Your task to perform on an android device: Open accessibility settings Image 0: 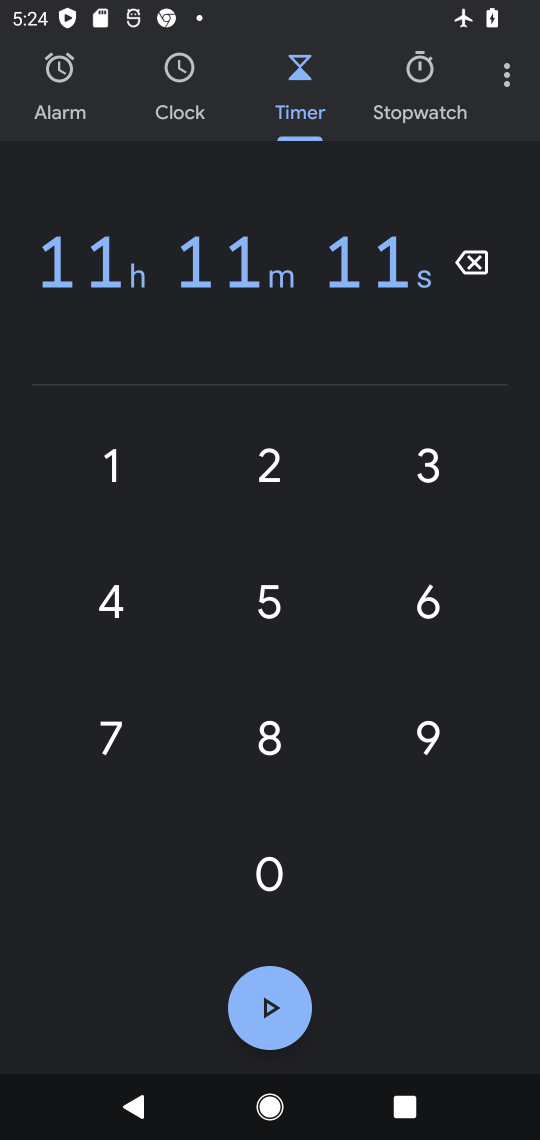
Step 0: press home button
Your task to perform on an android device: Open accessibility settings Image 1: 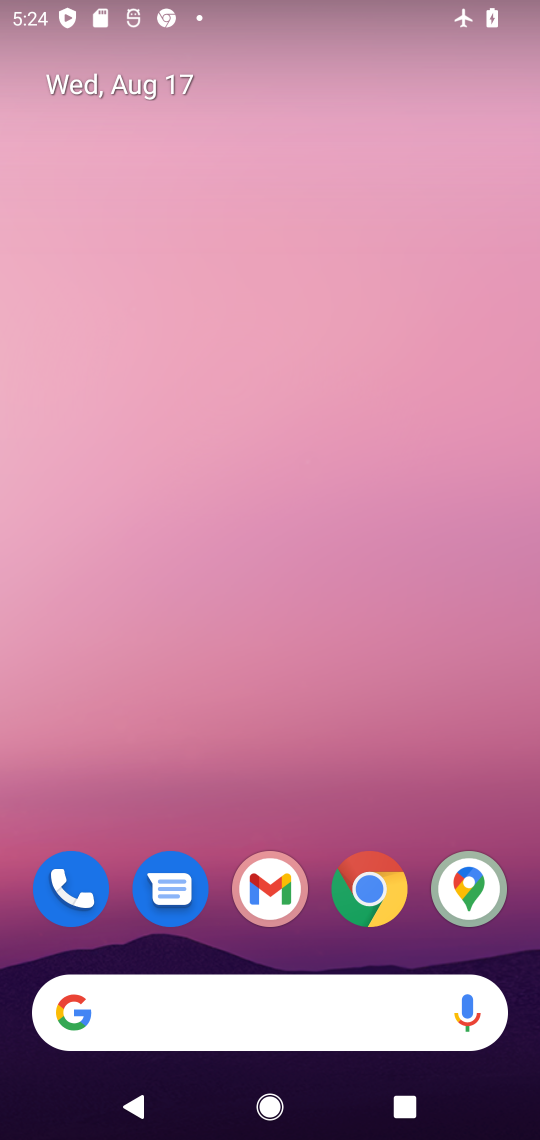
Step 1: drag from (283, 768) to (190, 198)
Your task to perform on an android device: Open accessibility settings Image 2: 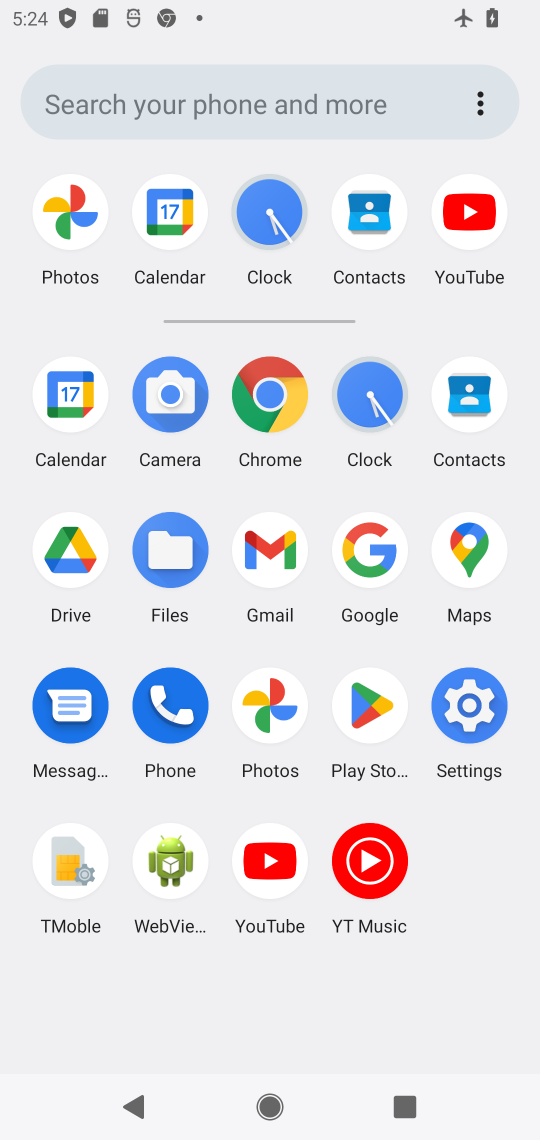
Step 2: click (470, 703)
Your task to perform on an android device: Open accessibility settings Image 3: 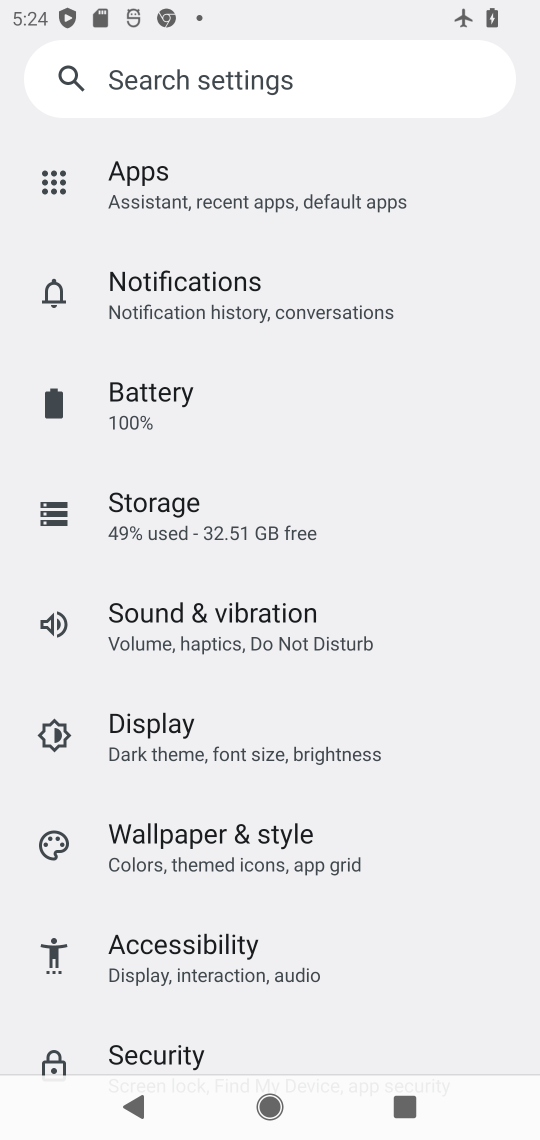
Step 3: click (220, 937)
Your task to perform on an android device: Open accessibility settings Image 4: 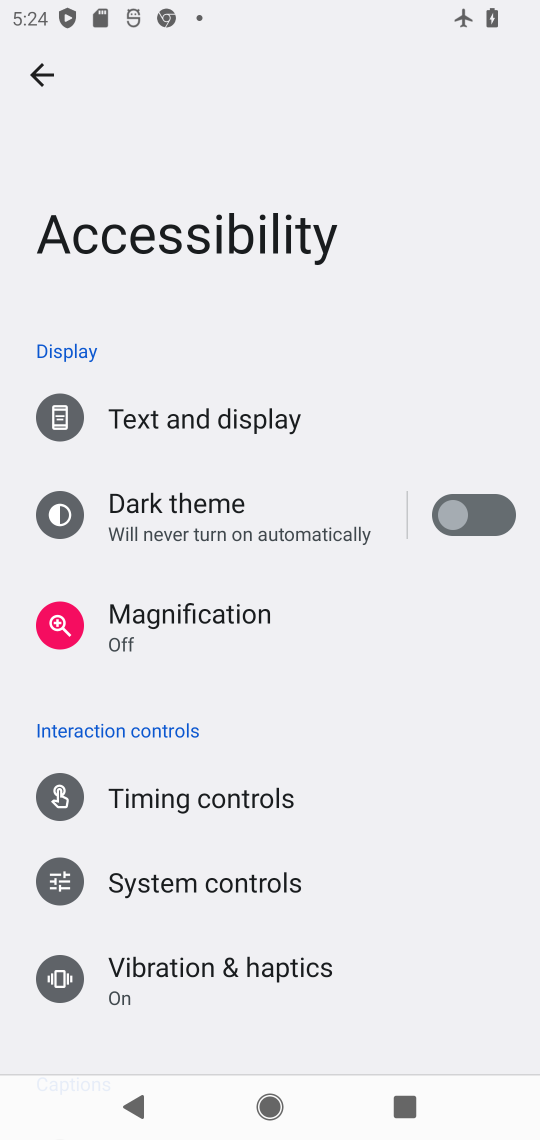
Step 4: task complete